Your task to perform on an android device: see tabs open on other devices in the chrome app Image 0: 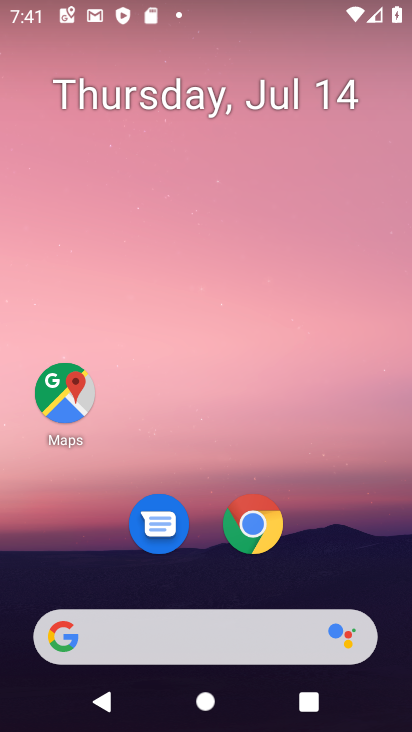
Step 0: click (267, 510)
Your task to perform on an android device: see tabs open on other devices in the chrome app Image 1: 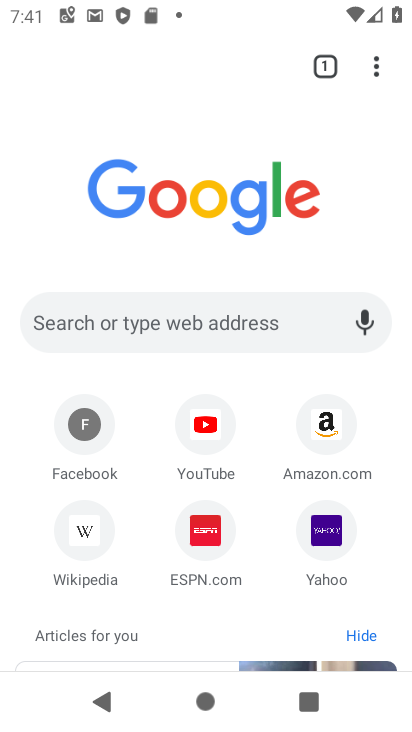
Step 1: click (378, 66)
Your task to perform on an android device: see tabs open on other devices in the chrome app Image 2: 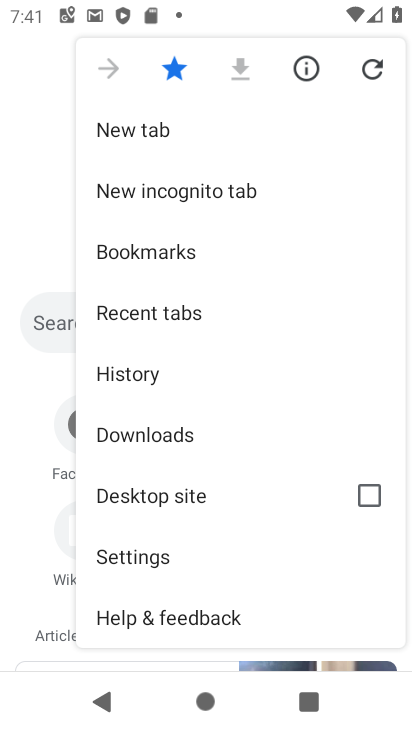
Step 2: click (188, 315)
Your task to perform on an android device: see tabs open on other devices in the chrome app Image 3: 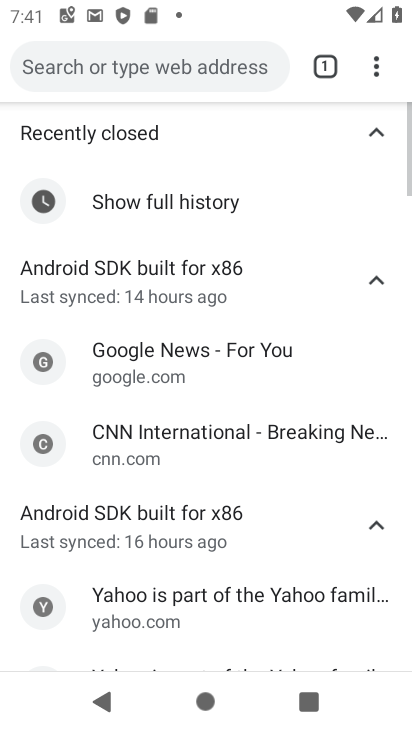
Step 3: task complete